Your task to perform on an android device: turn notification dots off Image 0: 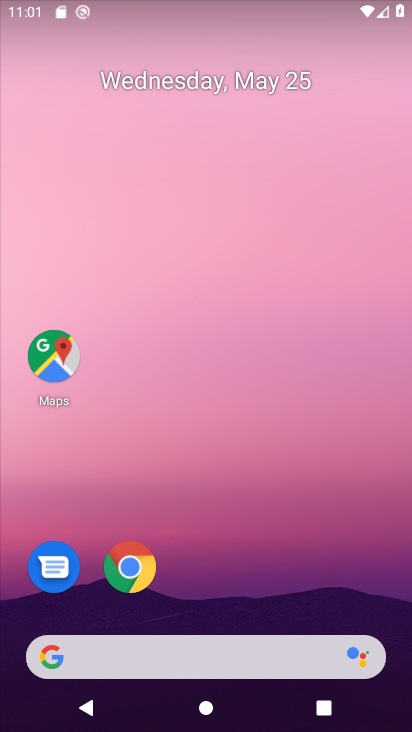
Step 0: drag from (189, 541) to (127, 31)
Your task to perform on an android device: turn notification dots off Image 1: 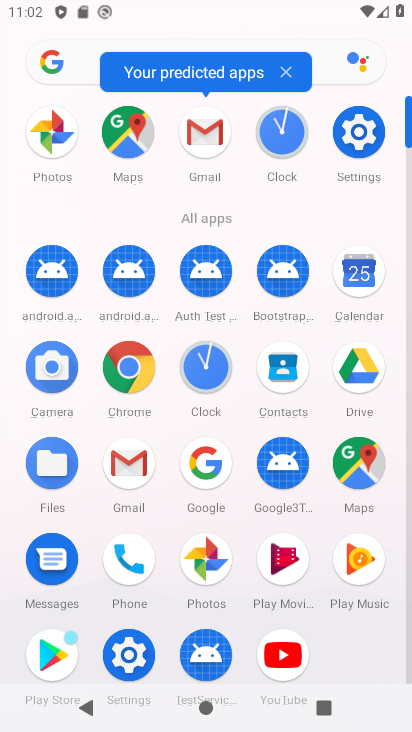
Step 1: click (366, 134)
Your task to perform on an android device: turn notification dots off Image 2: 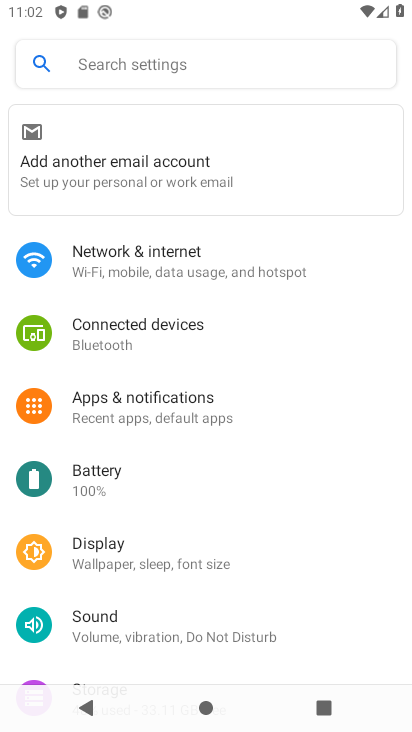
Step 2: click (201, 389)
Your task to perform on an android device: turn notification dots off Image 3: 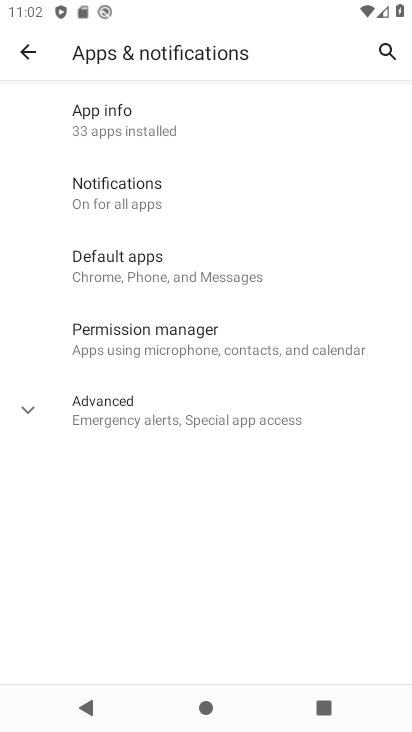
Step 3: click (148, 174)
Your task to perform on an android device: turn notification dots off Image 4: 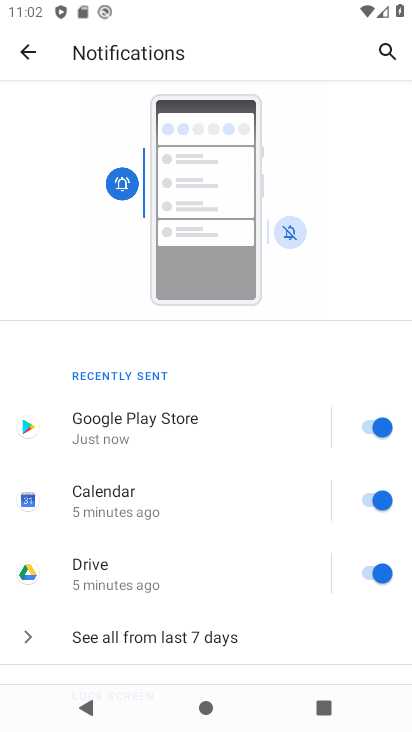
Step 4: drag from (168, 622) to (222, 228)
Your task to perform on an android device: turn notification dots off Image 5: 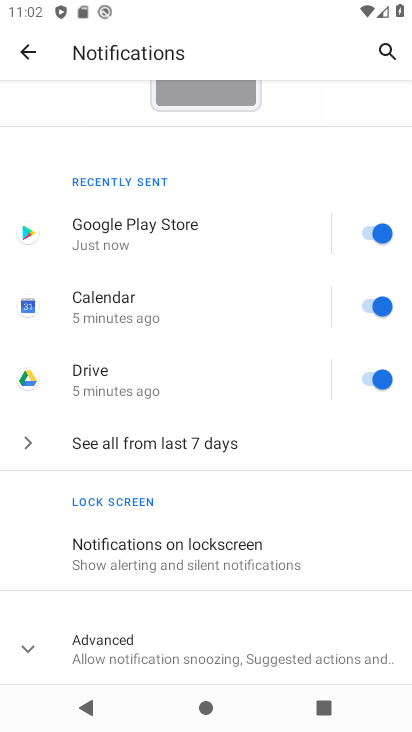
Step 5: click (188, 659)
Your task to perform on an android device: turn notification dots off Image 6: 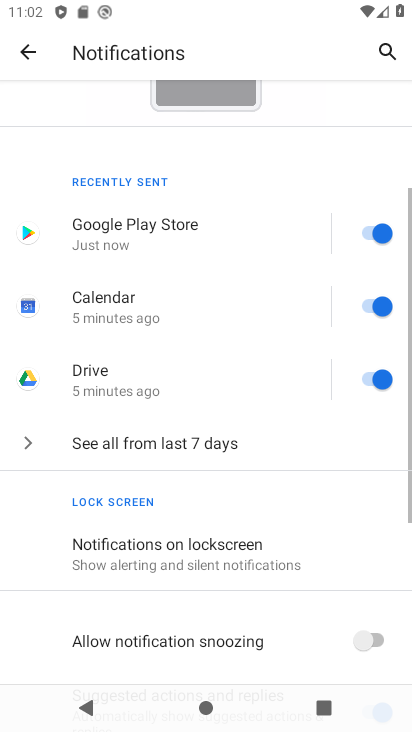
Step 6: drag from (189, 653) to (285, 197)
Your task to perform on an android device: turn notification dots off Image 7: 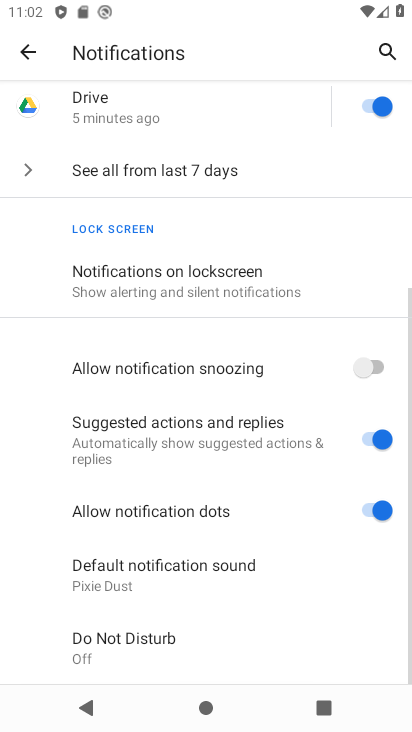
Step 7: drag from (326, 549) to (341, 300)
Your task to perform on an android device: turn notification dots off Image 8: 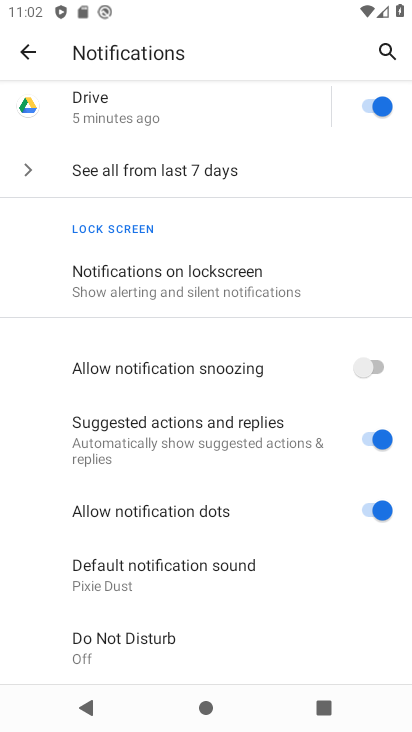
Step 8: click (376, 501)
Your task to perform on an android device: turn notification dots off Image 9: 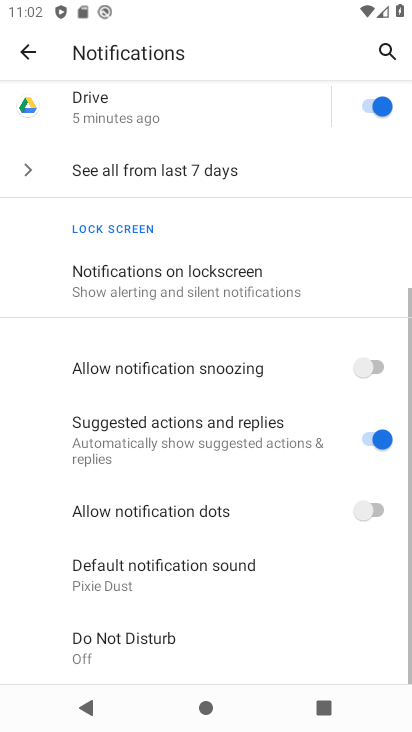
Step 9: task complete